Your task to perform on an android device: Open Wikipedia Image 0: 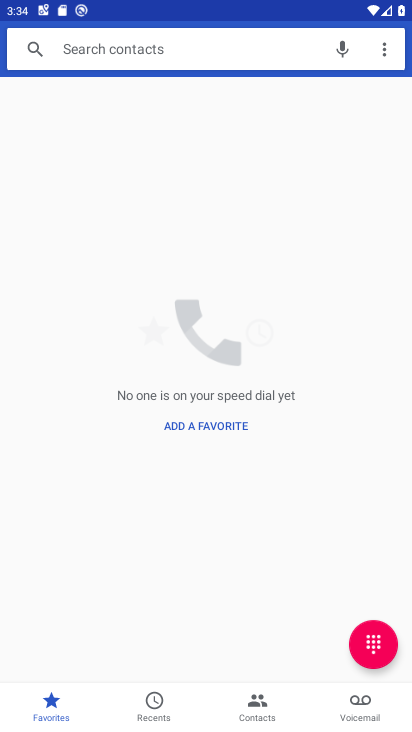
Step 0: press home button
Your task to perform on an android device: Open Wikipedia Image 1: 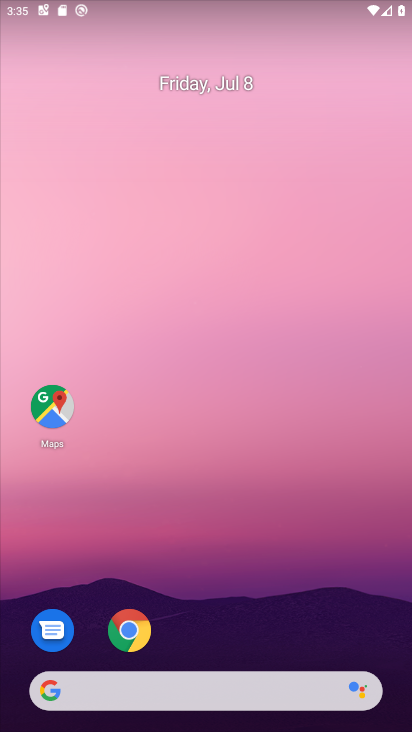
Step 1: drag from (265, 631) to (298, 139)
Your task to perform on an android device: Open Wikipedia Image 2: 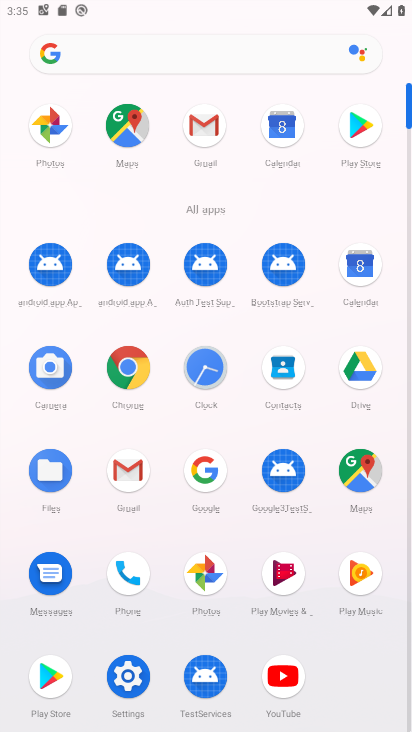
Step 2: click (132, 366)
Your task to perform on an android device: Open Wikipedia Image 3: 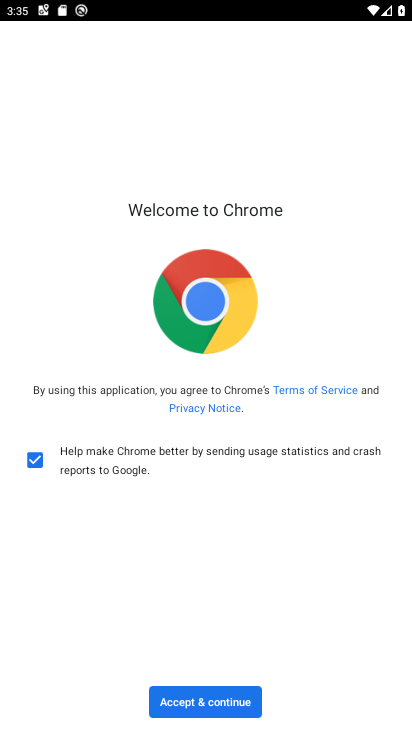
Step 3: click (205, 702)
Your task to perform on an android device: Open Wikipedia Image 4: 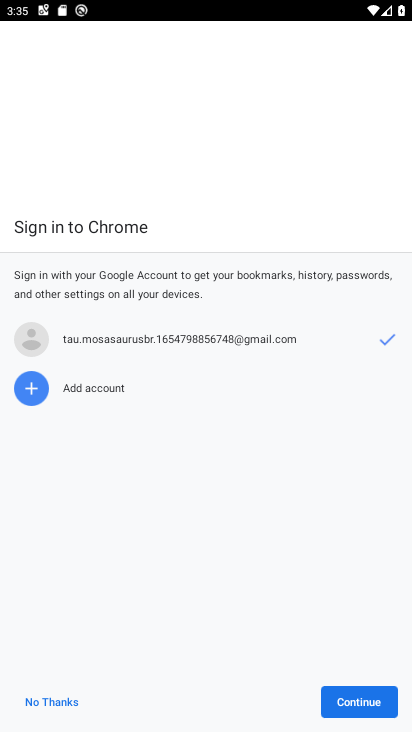
Step 4: click (370, 701)
Your task to perform on an android device: Open Wikipedia Image 5: 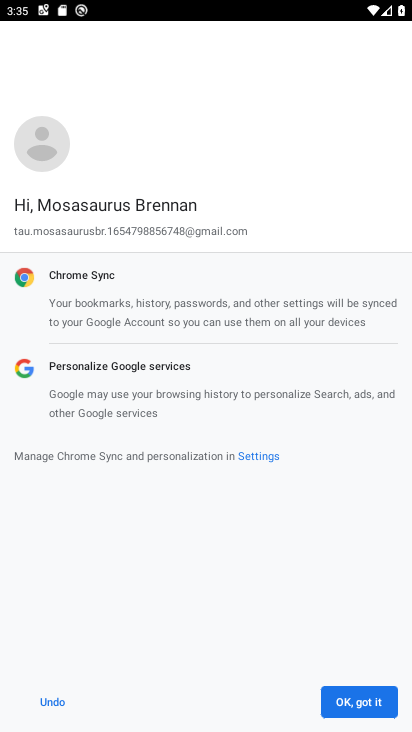
Step 5: click (355, 706)
Your task to perform on an android device: Open Wikipedia Image 6: 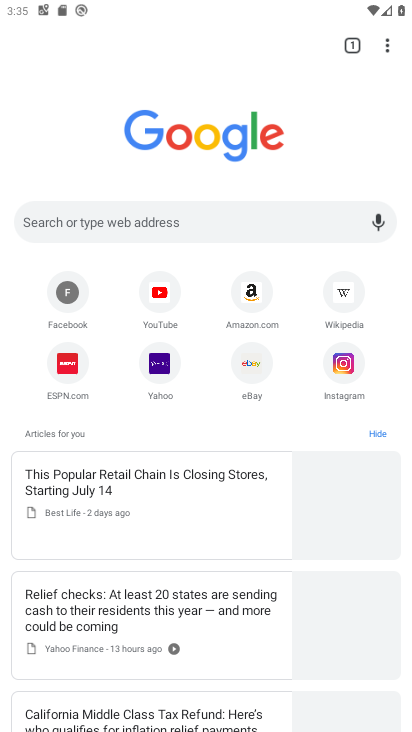
Step 6: click (346, 289)
Your task to perform on an android device: Open Wikipedia Image 7: 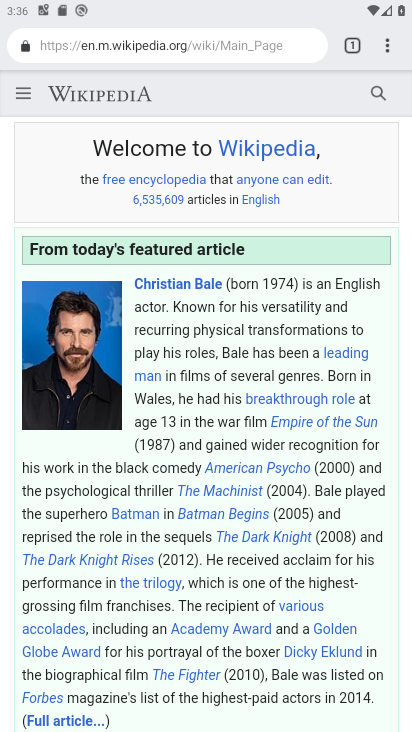
Step 7: task complete